Your task to perform on an android device: Open the web browser Image 0: 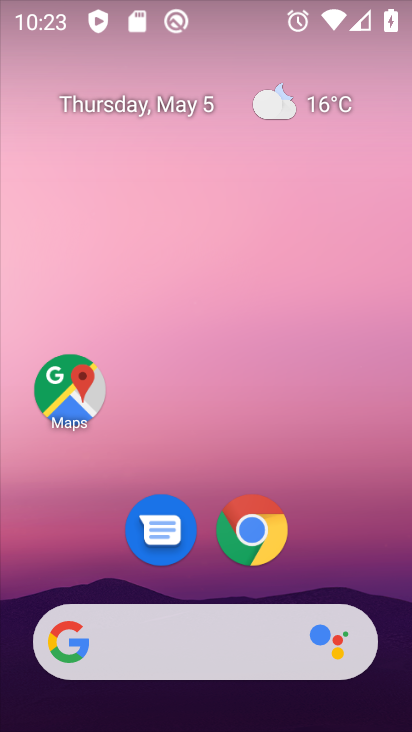
Step 0: drag from (352, 534) to (166, 28)
Your task to perform on an android device: Open the web browser Image 1: 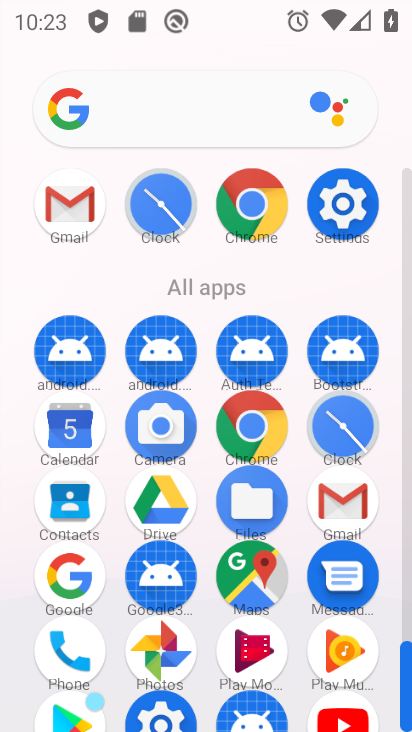
Step 1: click (233, 191)
Your task to perform on an android device: Open the web browser Image 2: 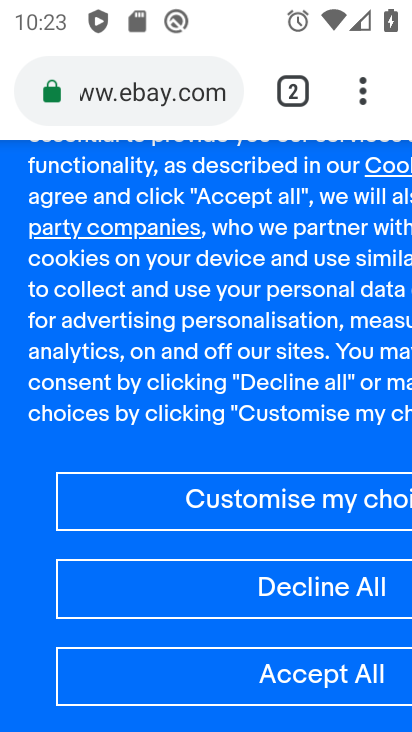
Step 2: task complete